Your task to perform on an android device: refresh tabs in the chrome app Image 0: 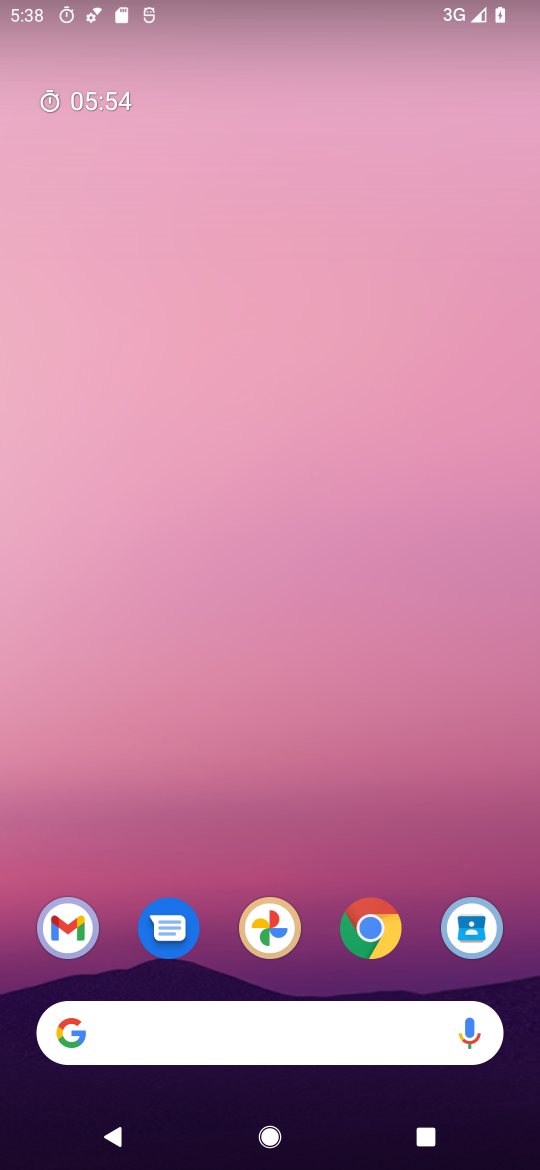
Step 0: drag from (218, 516) to (316, 0)
Your task to perform on an android device: refresh tabs in the chrome app Image 1: 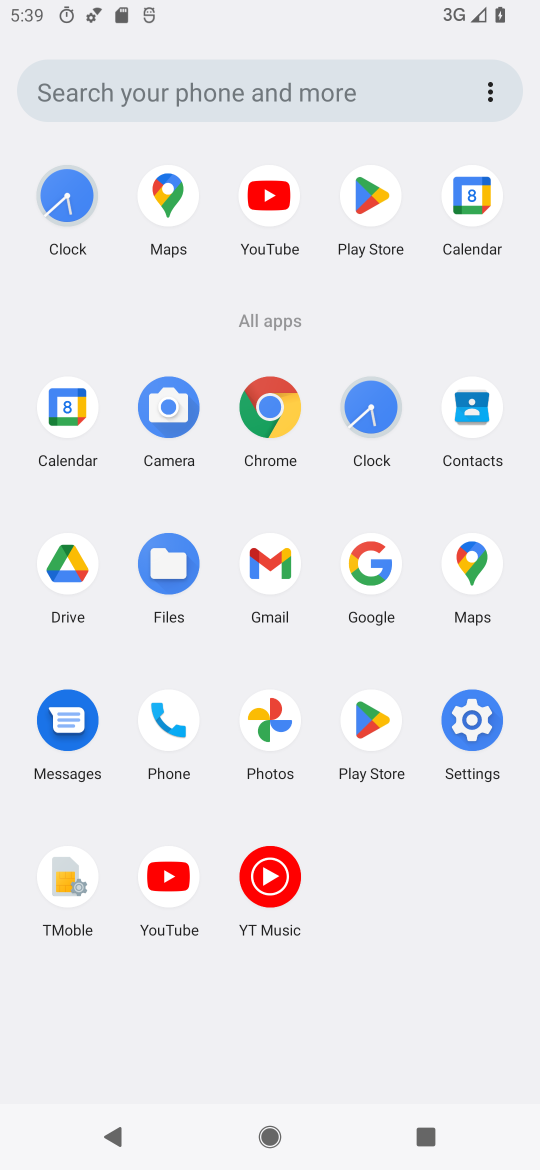
Step 1: click (271, 409)
Your task to perform on an android device: refresh tabs in the chrome app Image 2: 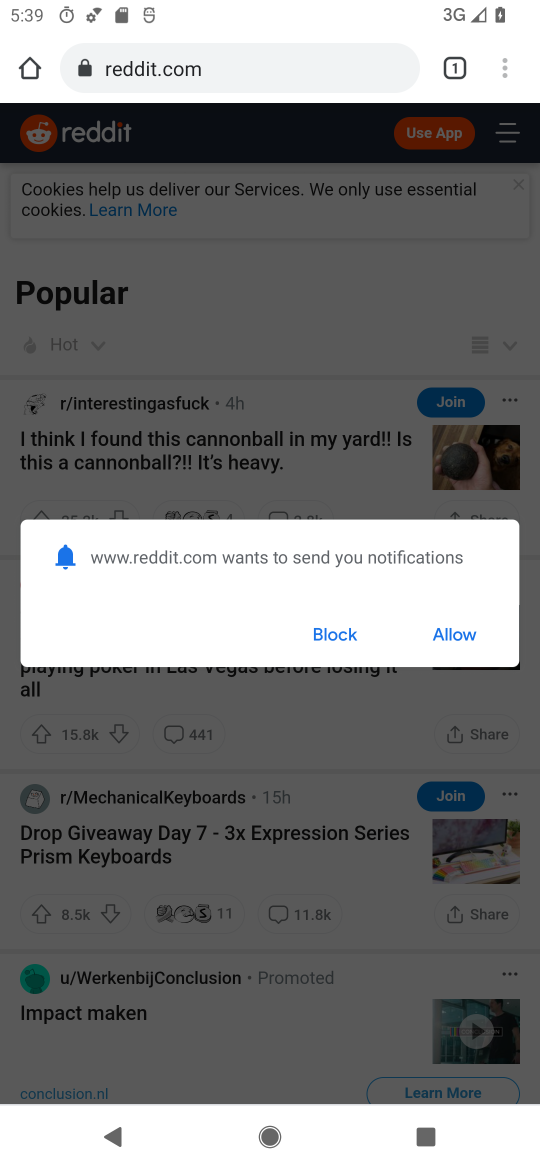
Step 2: click (320, 636)
Your task to perform on an android device: refresh tabs in the chrome app Image 3: 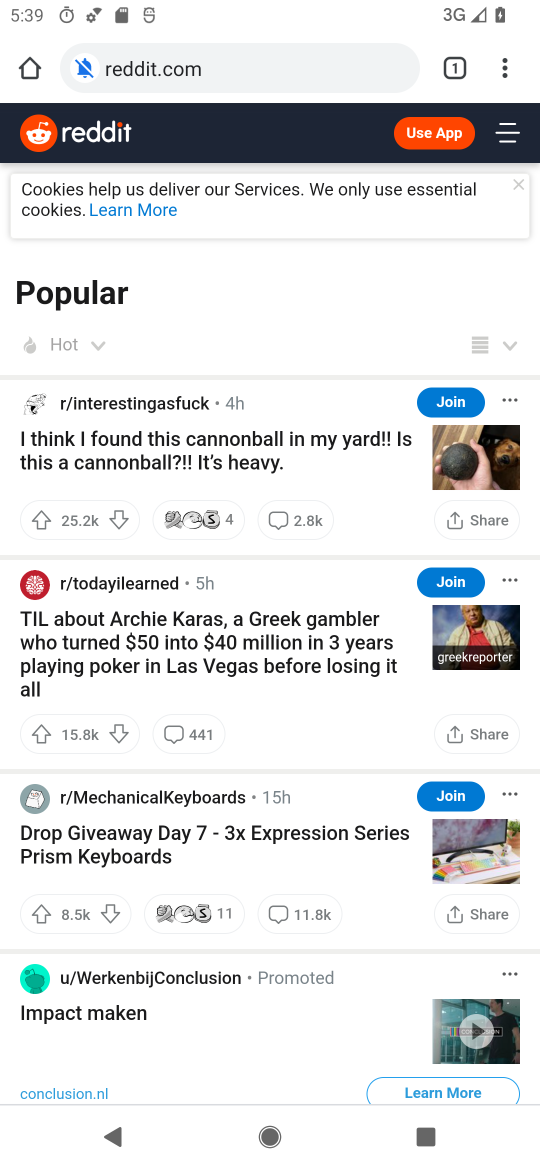
Step 3: click (505, 59)
Your task to perform on an android device: refresh tabs in the chrome app Image 4: 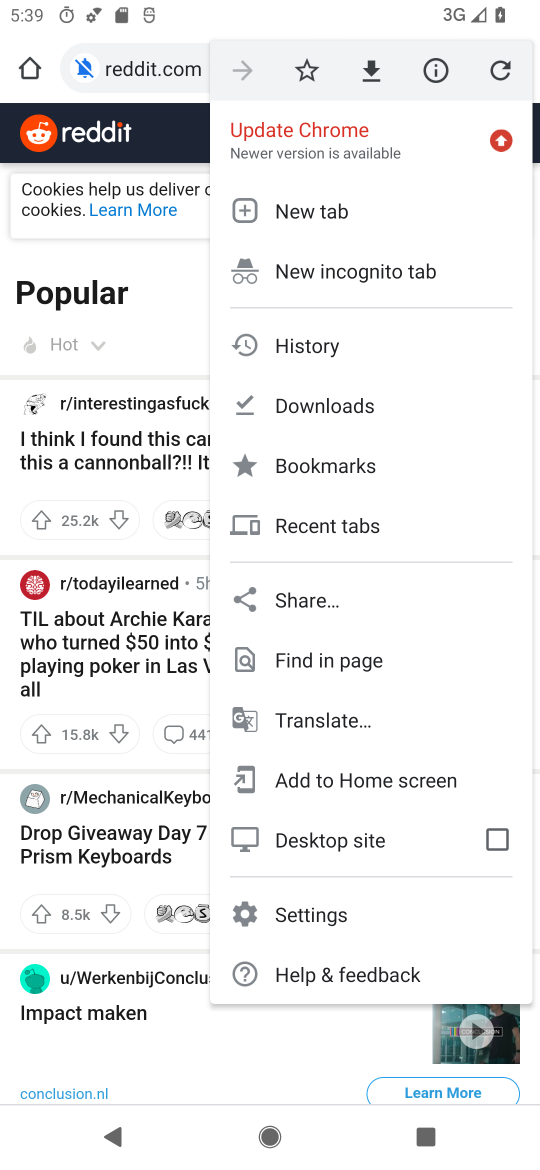
Step 4: click (505, 68)
Your task to perform on an android device: refresh tabs in the chrome app Image 5: 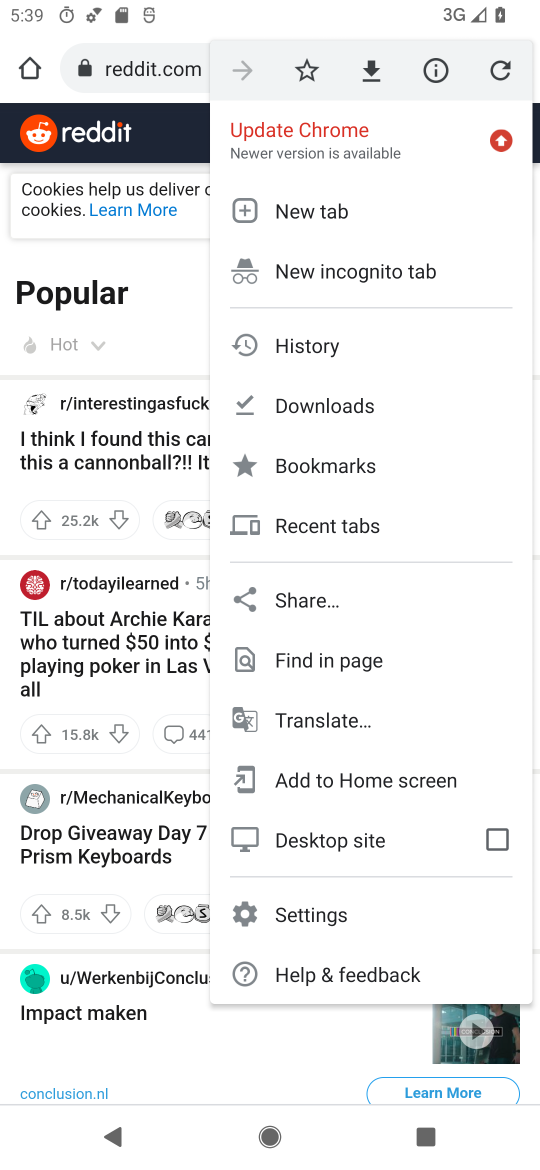
Step 5: click (490, 65)
Your task to perform on an android device: refresh tabs in the chrome app Image 6: 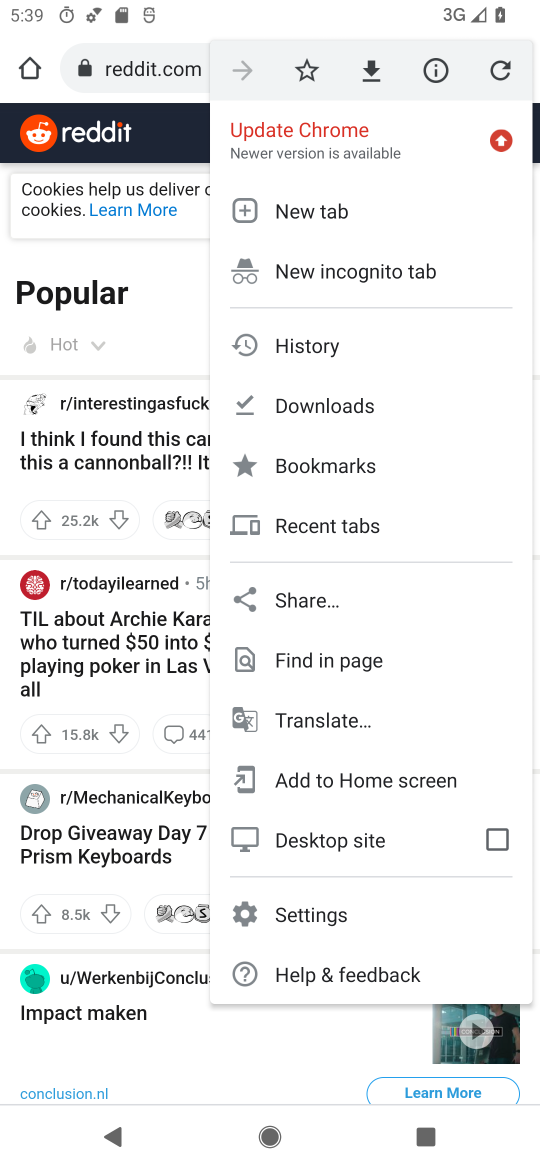
Step 6: click (484, 66)
Your task to perform on an android device: refresh tabs in the chrome app Image 7: 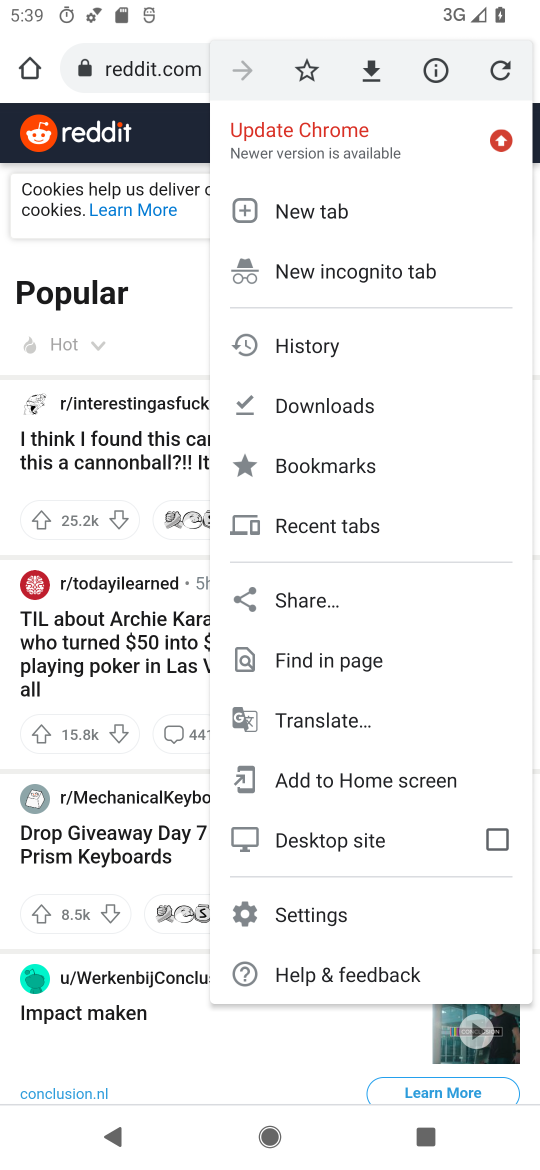
Step 7: click (508, 71)
Your task to perform on an android device: refresh tabs in the chrome app Image 8: 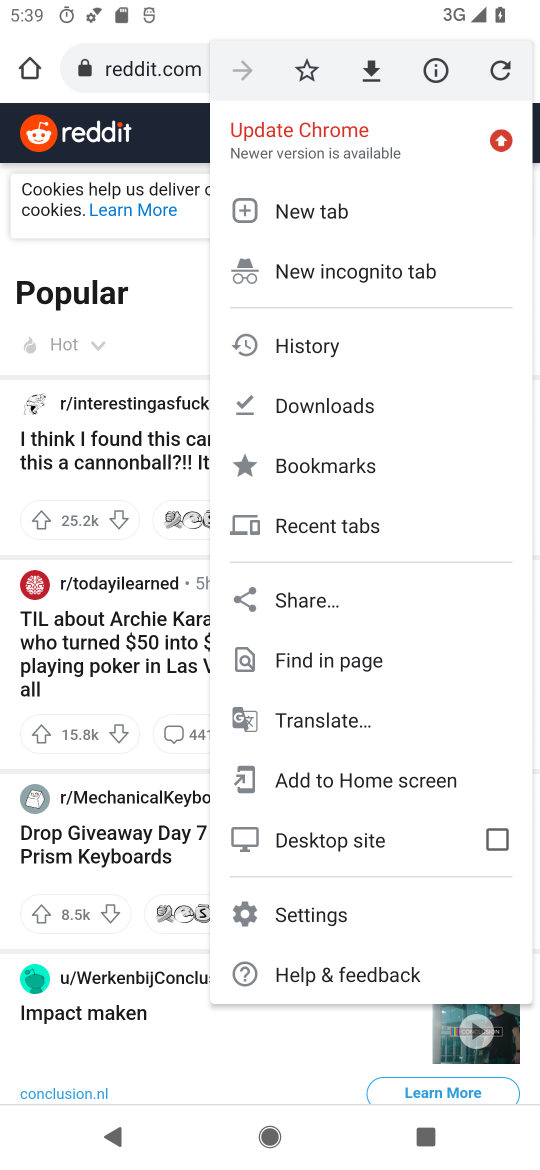
Step 8: click (500, 68)
Your task to perform on an android device: refresh tabs in the chrome app Image 9: 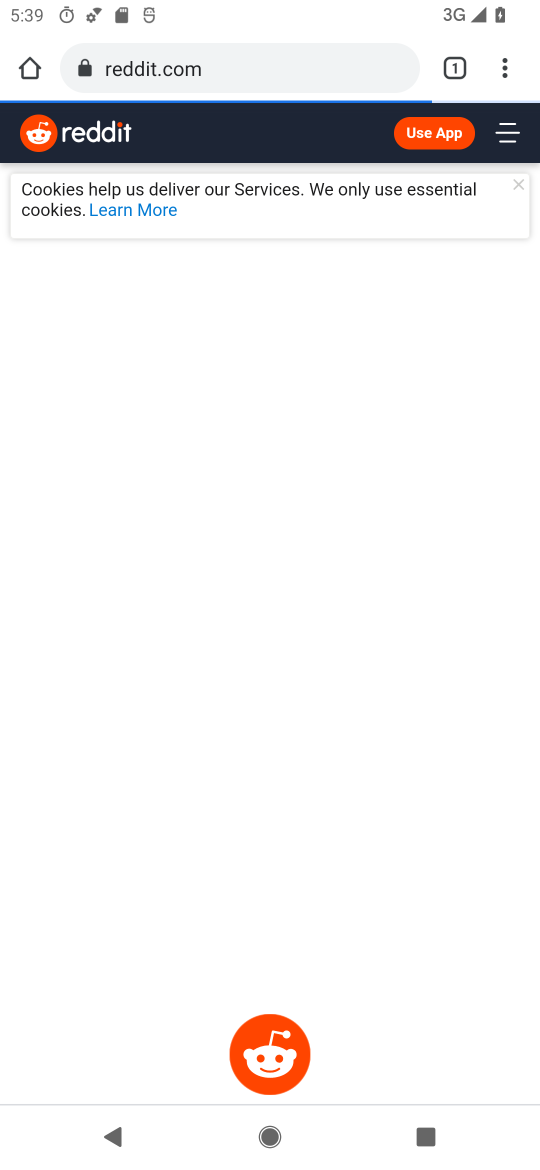
Step 9: task complete